Your task to perform on an android device: set the stopwatch Image 0: 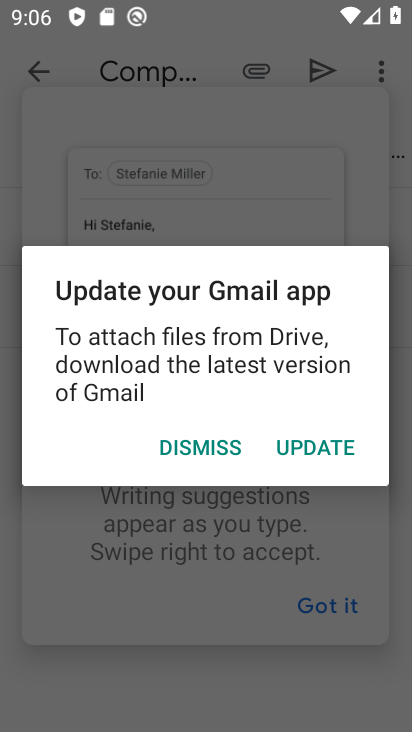
Step 0: press home button
Your task to perform on an android device: set the stopwatch Image 1: 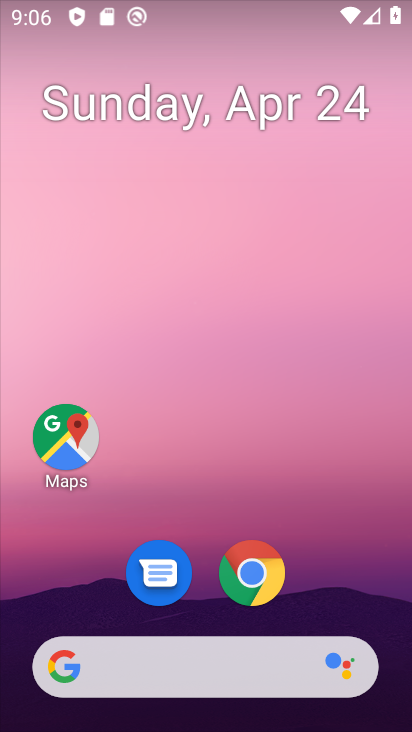
Step 1: drag from (193, 339) to (259, 72)
Your task to perform on an android device: set the stopwatch Image 2: 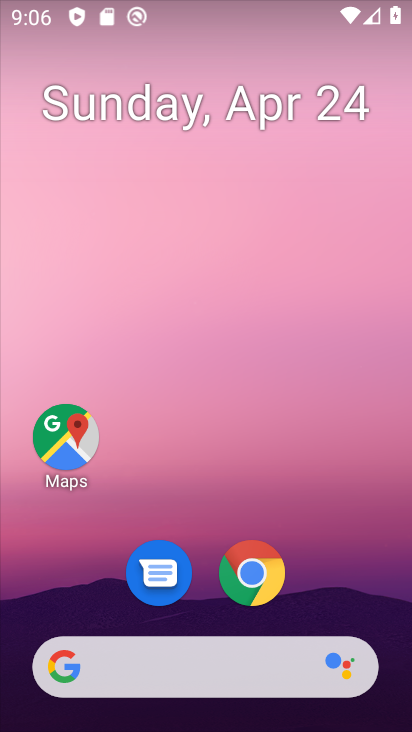
Step 2: drag from (200, 604) to (311, 21)
Your task to perform on an android device: set the stopwatch Image 3: 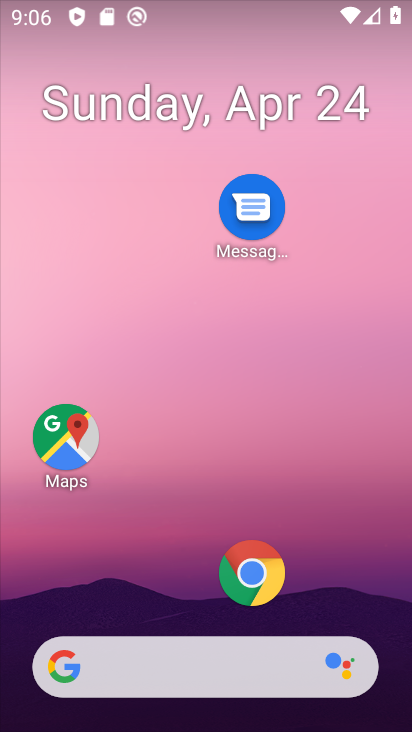
Step 3: drag from (193, 600) to (276, 8)
Your task to perform on an android device: set the stopwatch Image 4: 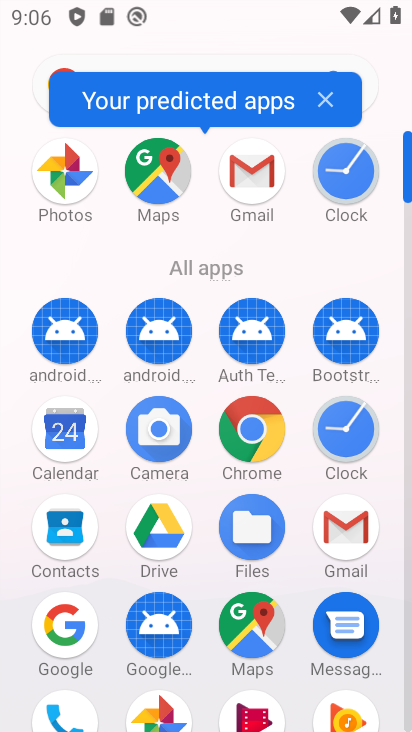
Step 4: click (347, 420)
Your task to perform on an android device: set the stopwatch Image 5: 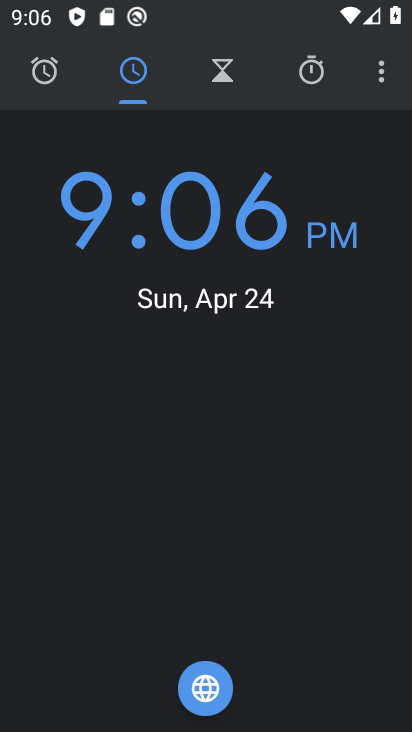
Step 5: click (313, 79)
Your task to perform on an android device: set the stopwatch Image 6: 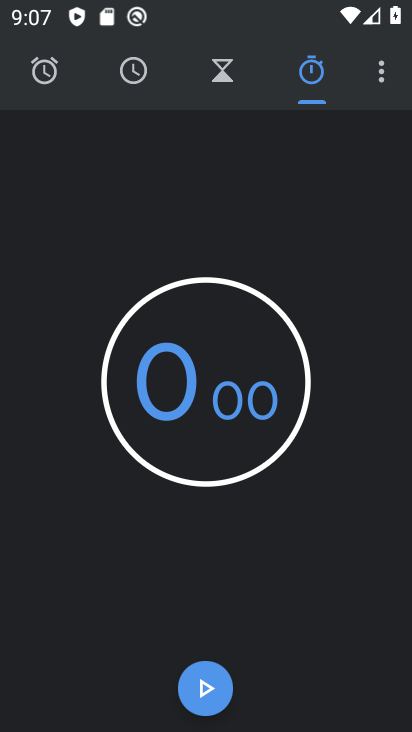
Step 6: click (207, 681)
Your task to perform on an android device: set the stopwatch Image 7: 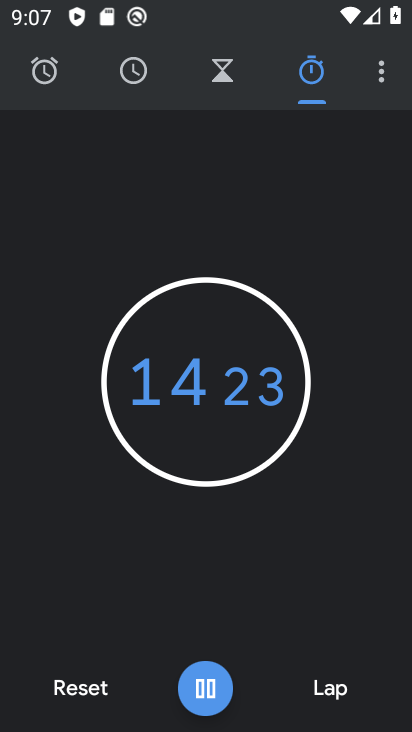
Step 7: task complete